Your task to perform on an android device: What is the news today? Image 0: 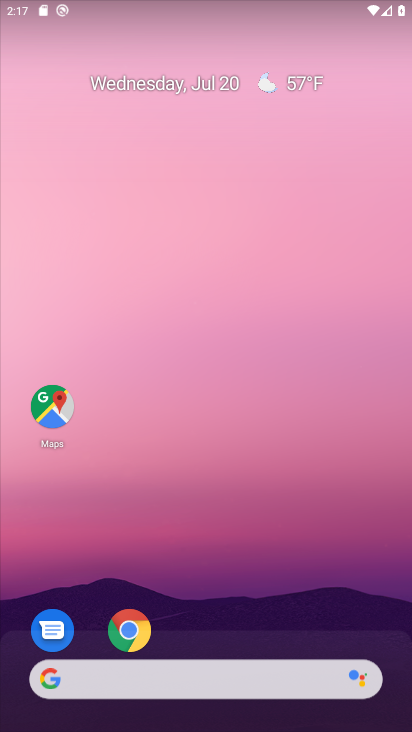
Step 0: click (125, 633)
Your task to perform on an android device: What is the news today? Image 1: 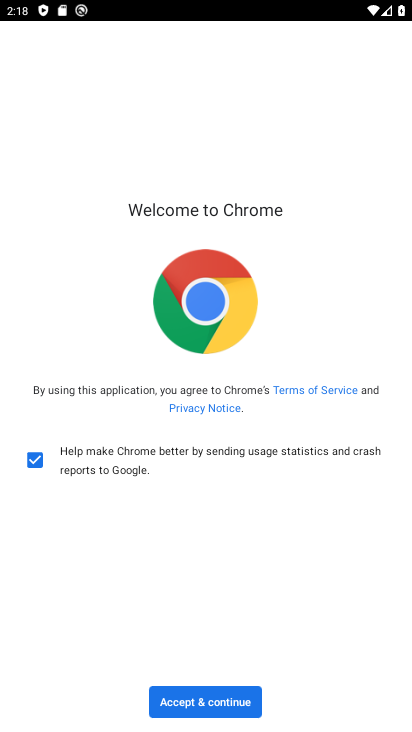
Step 1: click (198, 708)
Your task to perform on an android device: What is the news today? Image 2: 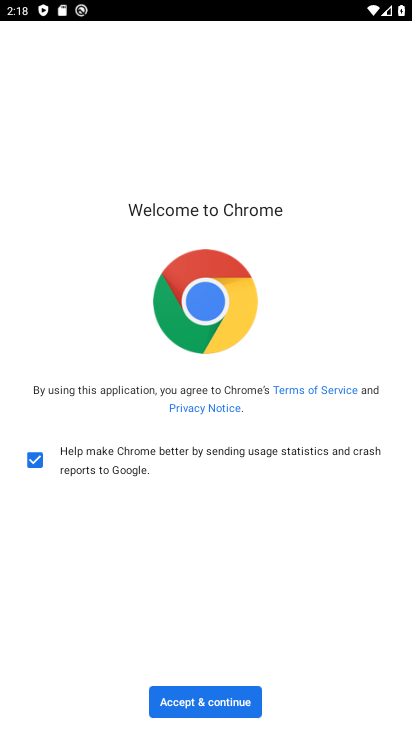
Step 2: click (198, 708)
Your task to perform on an android device: What is the news today? Image 3: 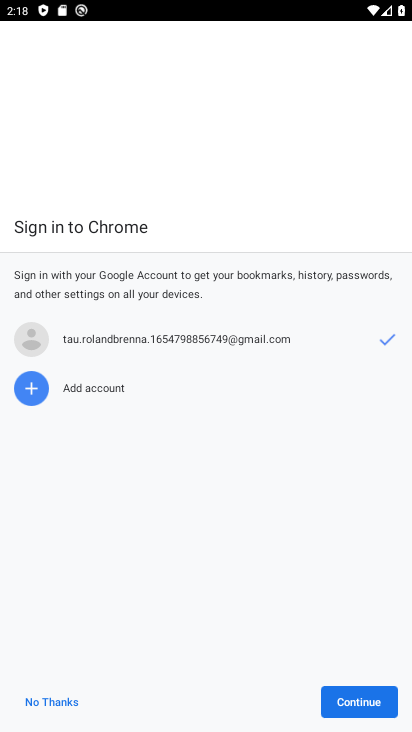
Step 3: click (343, 701)
Your task to perform on an android device: What is the news today? Image 4: 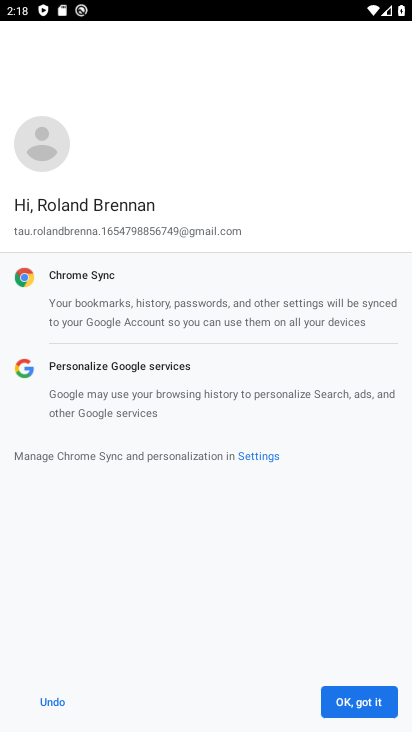
Step 4: click (348, 703)
Your task to perform on an android device: What is the news today? Image 5: 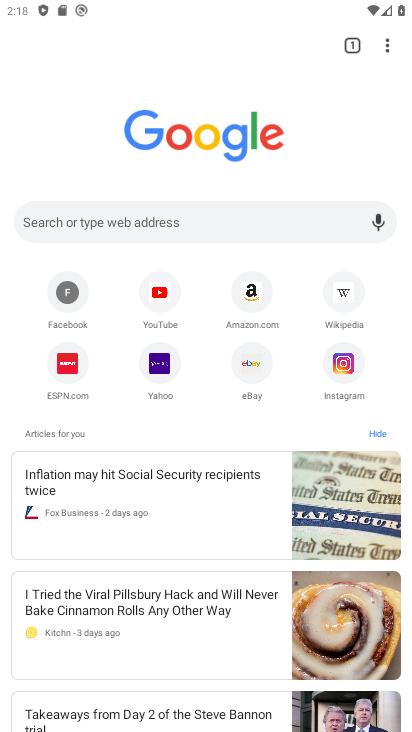
Step 5: click (170, 210)
Your task to perform on an android device: What is the news today? Image 6: 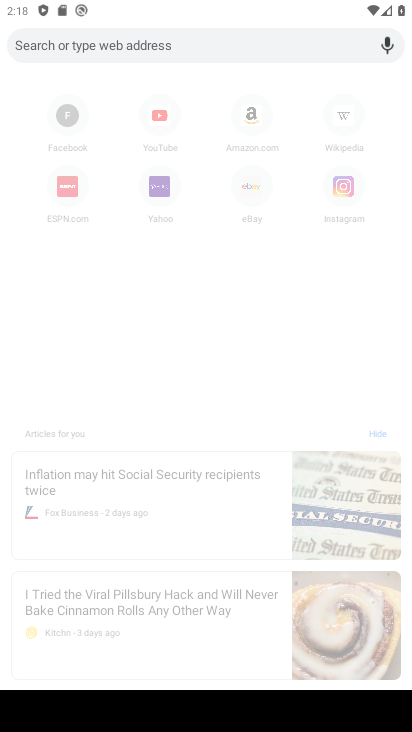
Step 6: type "What is the news today?"
Your task to perform on an android device: What is the news today? Image 7: 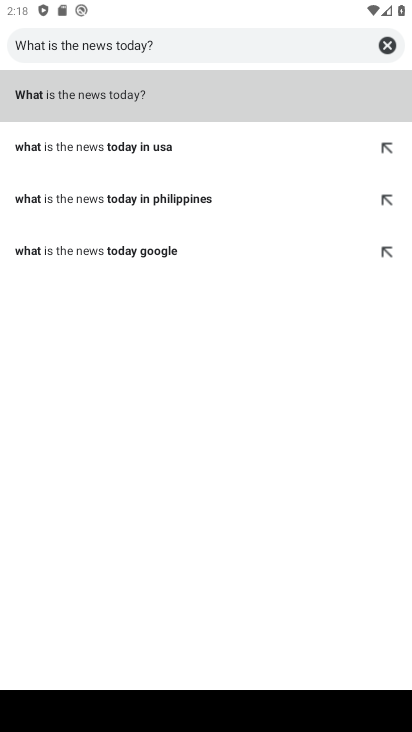
Step 7: click (203, 103)
Your task to perform on an android device: What is the news today? Image 8: 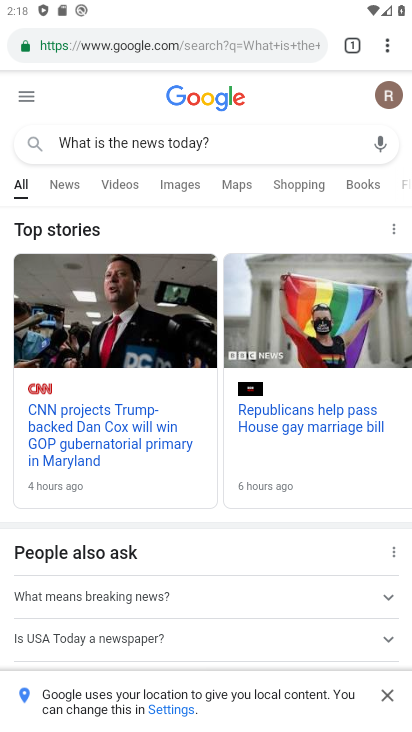
Step 8: task complete